Your task to perform on an android device: Go to accessibility settings Image 0: 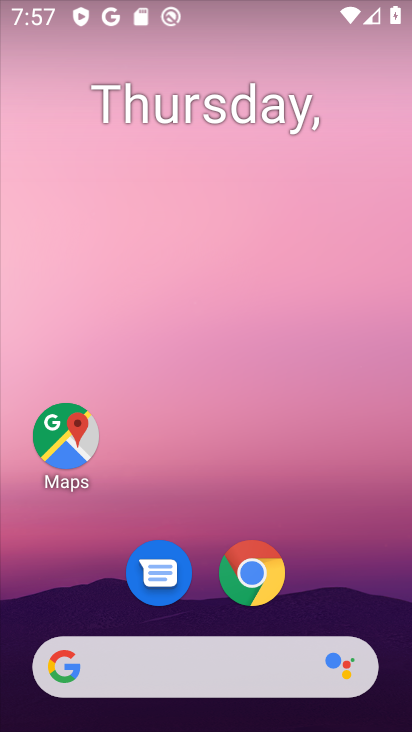
Step 0: drag from (381, 612) to (340, 130)
Your task to perform on an android device: Go to accessibility settings Image 1: 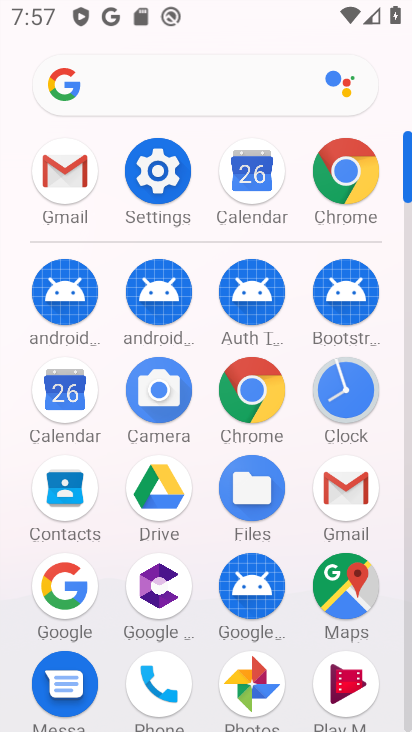
Step 1: click (143, 193)
Your task to perform on an android device: Go to accessibility settings Image 2: 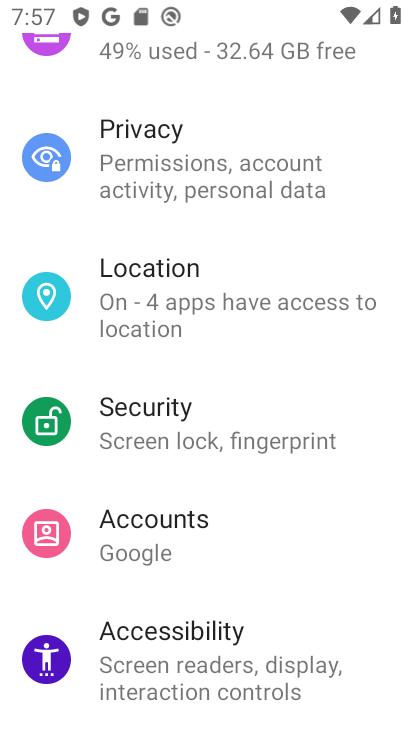
Step 2: click (161, 643)
Your task to perform on an android device: Go to accessibility settings Image 3: 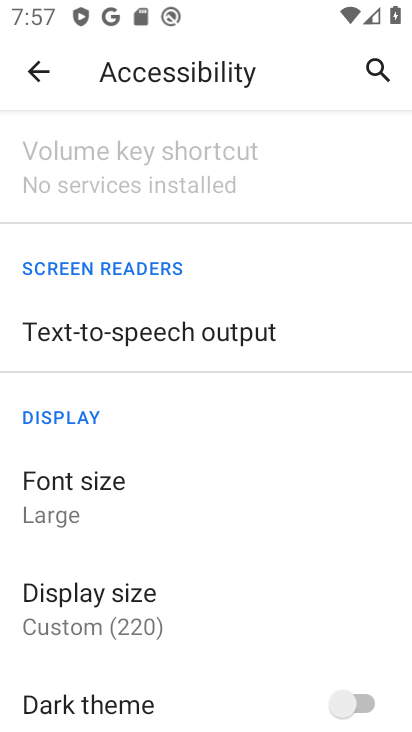
Step 3: task complete